Your task to perform on an android device: Open calendar and show me the third week of next month Image 0: 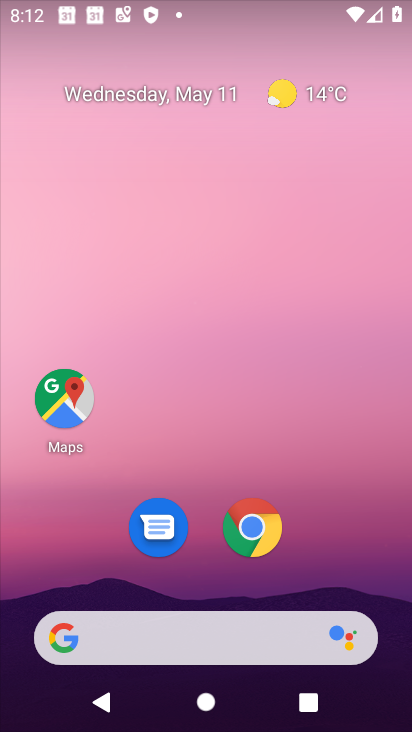
Step 0: click (155, 105)
Your task to perform on an android device: Open calendar and show me the third week of next month Image 1: 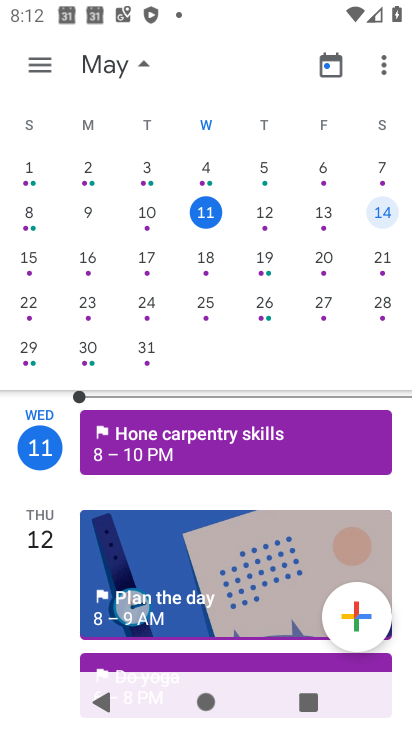
Step 1: click (155, 105)
Your task to perform on an android device: Open calendar and show me the third week of next month Image 2: 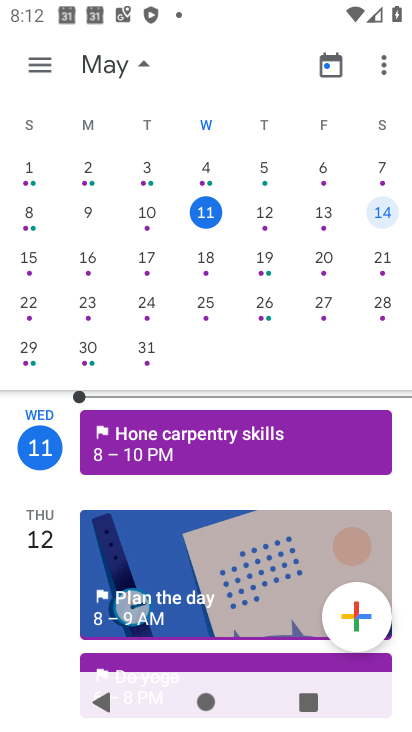
Step 2: drag from (353, 348) to (3, 270)
Your task to perform on an android device: Open calendar and show me the third week of next month Image 3: 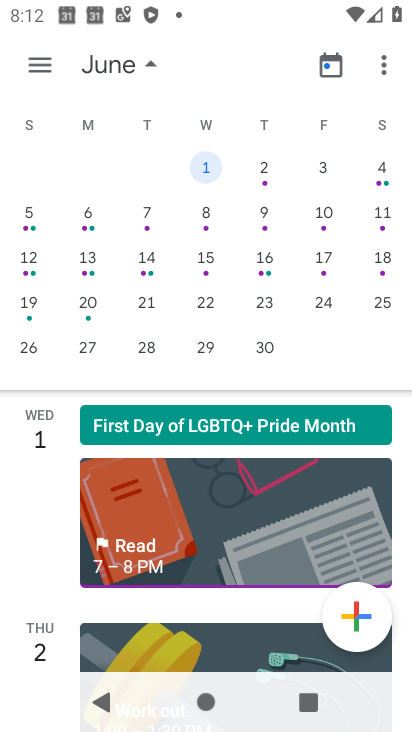
Step 3: click (205, 255)
Your task to perform on an android device: Open calendar and show me the third week of next month Image 4: 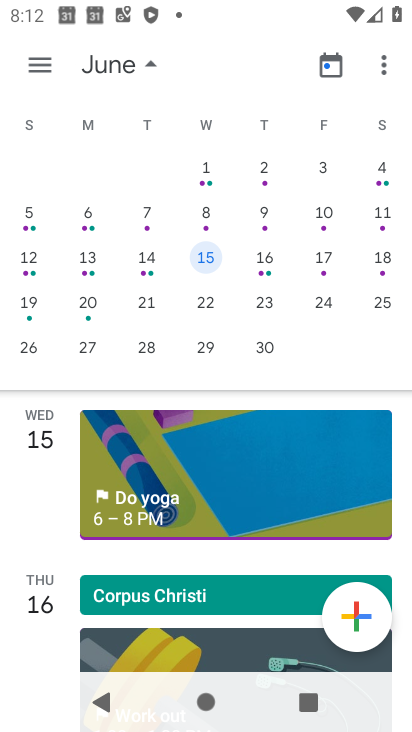
Step 4: task complete